Your task to perform on an android device: Open wifi settings Image 0: 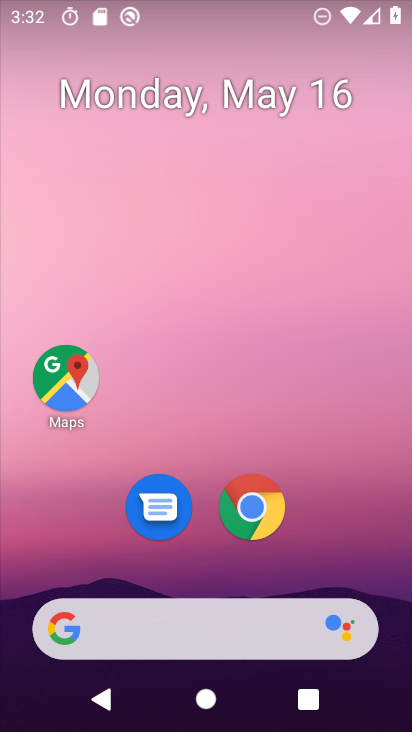
Step 0: drag from (395, 492) to (347, 7)
Your task to perform on an android device: Open wifi settings Image 1: 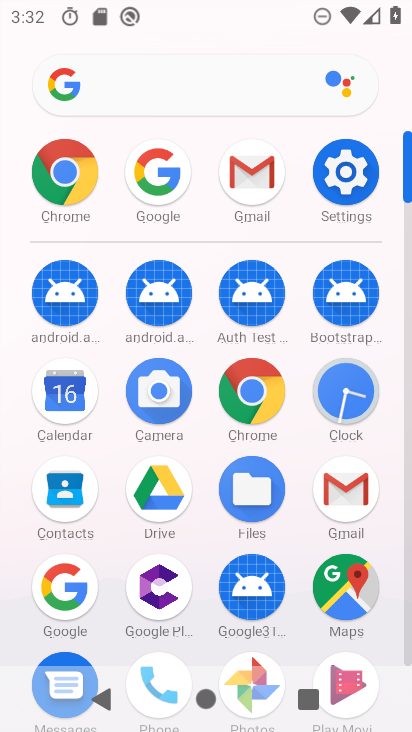
Step 1: click (336, 161)
Your task to perform on an android device: Open wifi settings Image 2: 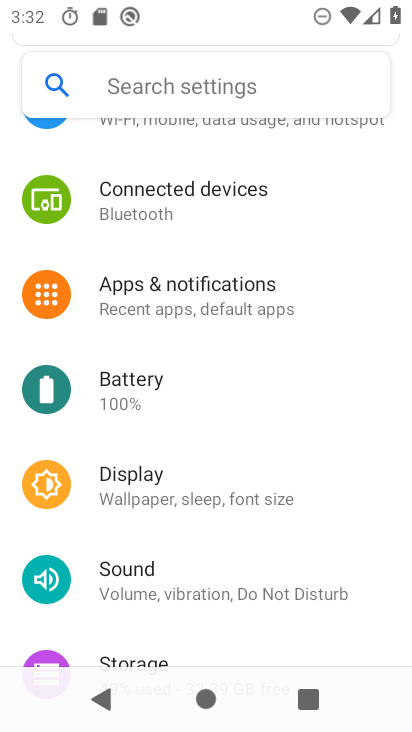
Step 2: drag from (184, 218) to (211, 485)
Your task to perform on an android device: Open wifi settings Image 3: 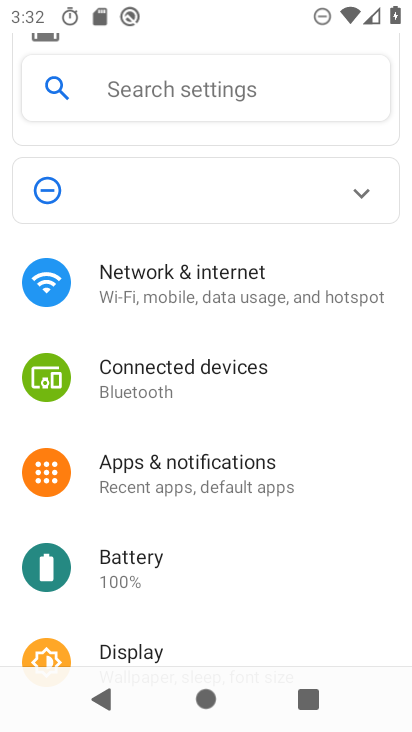
Step 3: click (175, 278)
Your task to perform on an android device: Open wifi settings Image 4: 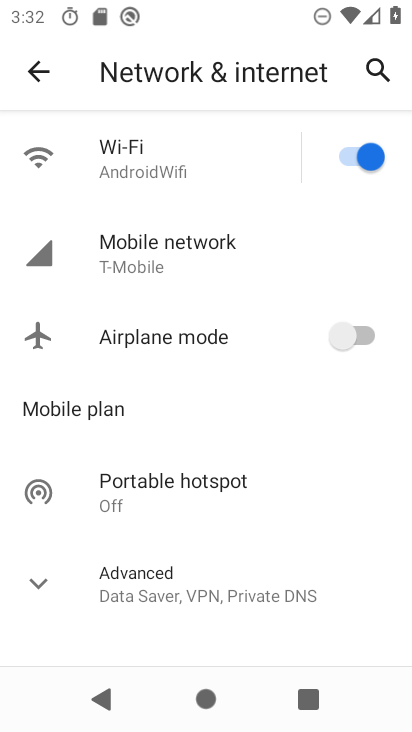
Step 4: click (145, 161)
Your task to perform on an android device: Open wifi settings Image 5: 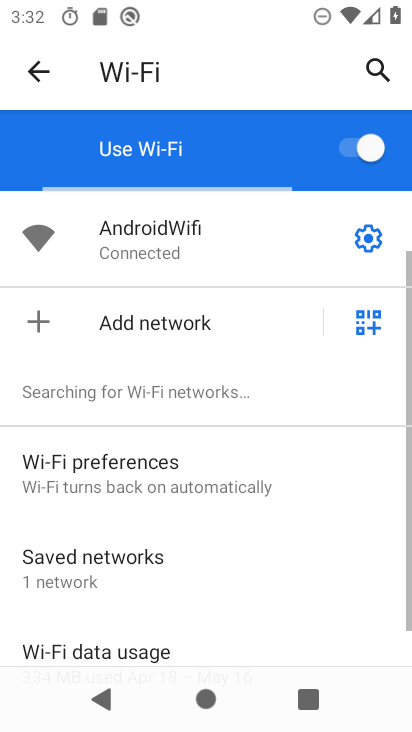
Step 5: task complete